Your task to perform on an android device: Set the phone to "Do not disturb". Image 0: 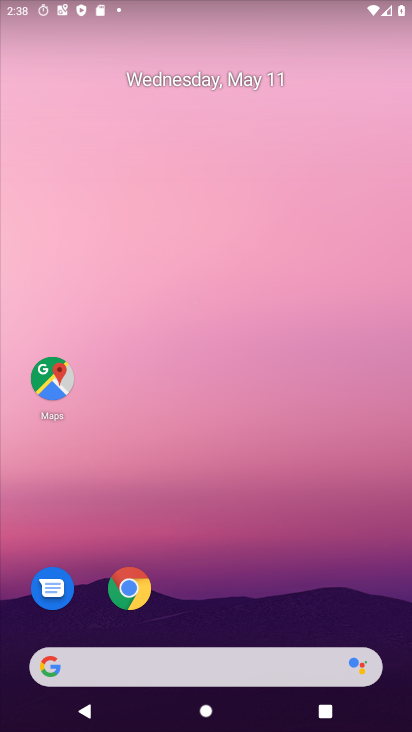
Step 0: drag from (205, 2) to (187, 362)
Your task to perform on an android device: Set the phone to "Do not disturb". Image 1: 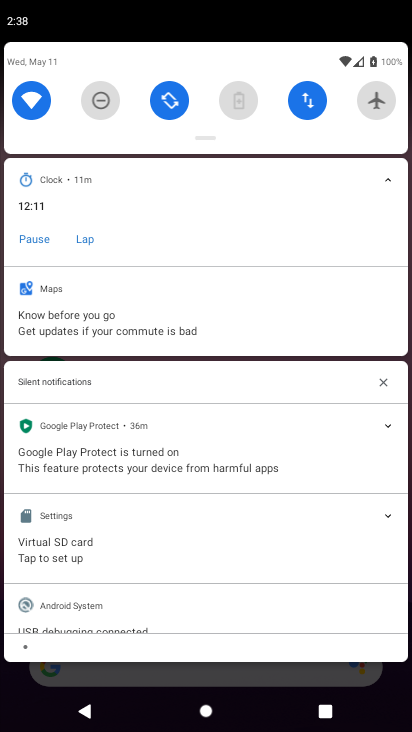
Step 1: drag from (198, 120) to (208, 560)
Your task to perform on an android device: Set the phone to "Do not disturb". Image 2: 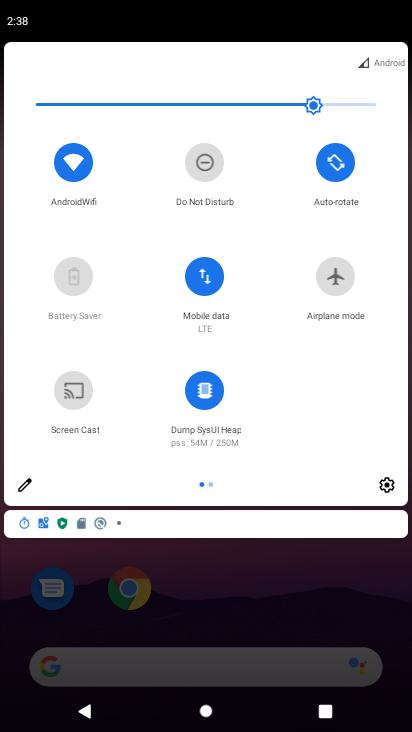
Step 2: click (204, 158)
Your task to perform on an android device: Set the phone to "Do not disturb". Image 3: 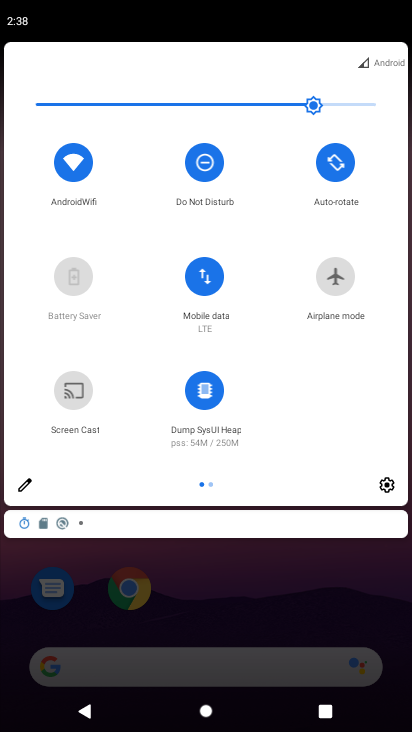
Step 3: task complete